Your task to perform on an android device: toggle translation in the chrome app Image 0: 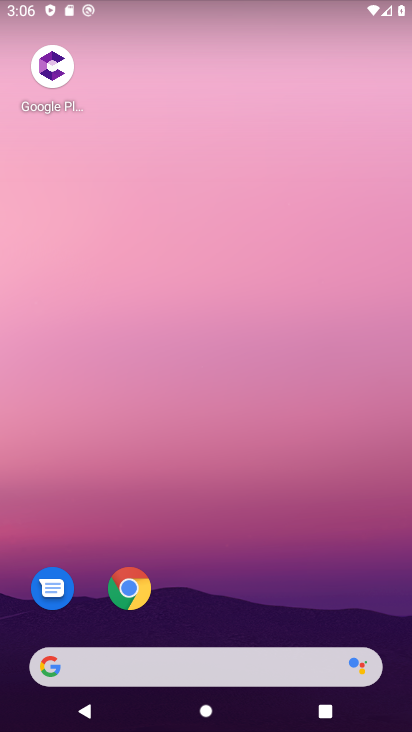
Step 0: click (134, 598)
Your task to perform on an android device: toggle translation in the chrome app Image 1: 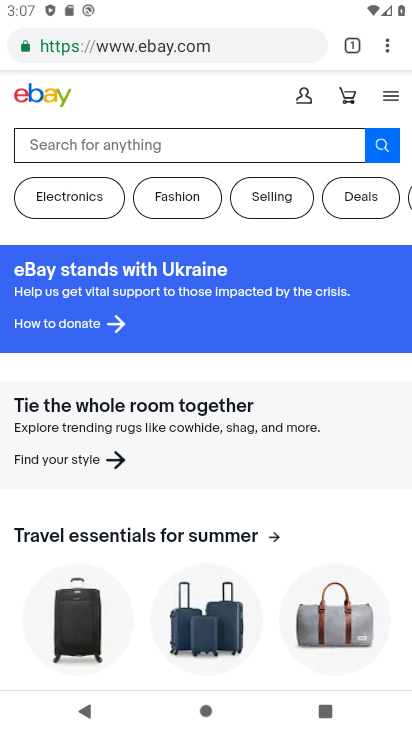
Step 1: drag from (391, 40) to (284, 539)
Your task to perform on an android device: toggle translation in the chrome app Image 2: 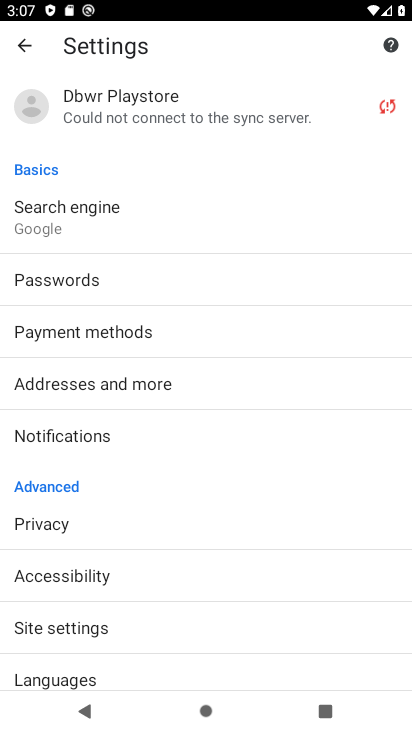
Step 2: drag from (139, 656) to (207, 400)
Your task to perform on an android device: toggle translation in the chrome app Image 3: 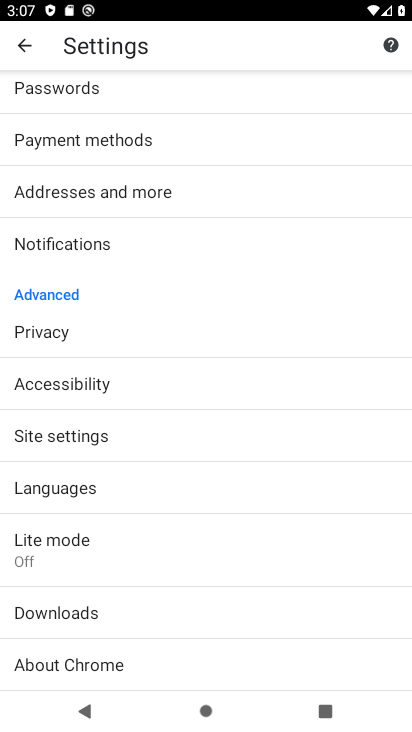
Step 3: click (106, 500)
Your task to perform on an android device: toggle translation in the chrome app Image 4: 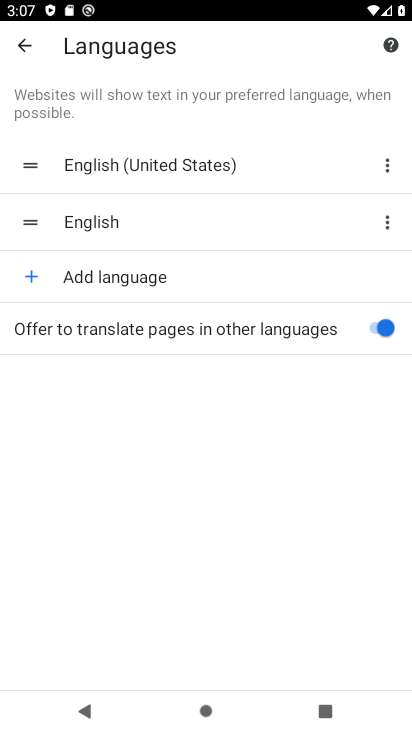
Step 4: click (378, 326)
Your task to perform on an android device: toggle translation in the chrome app Image 5: 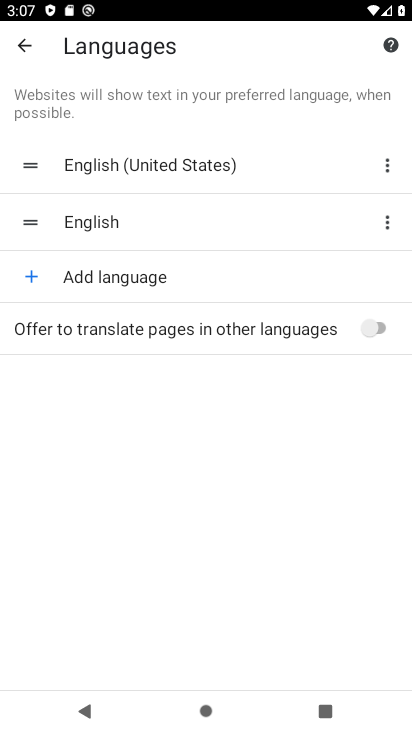
Step 5: task complete